Your task to perform on an android device: Open location settings Image 0: 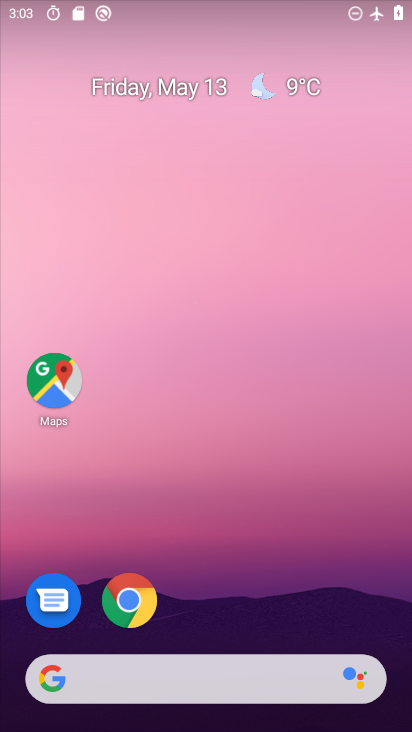
Step 0: drag from (183, 395) to (221, 112)
Your task to perform on an android device: Open location settings Image 1: 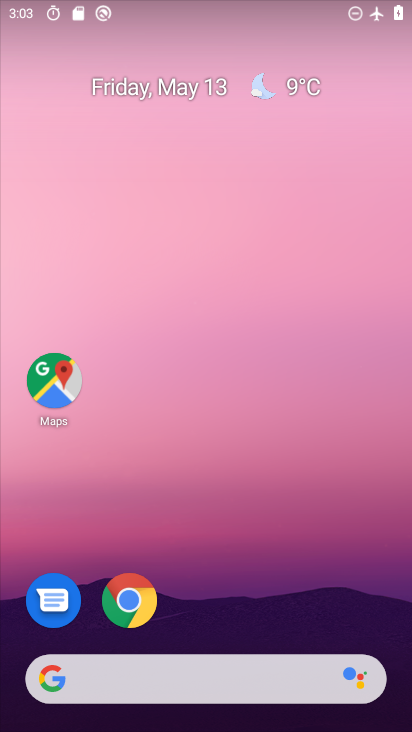
Step 1: drag from (194, 639) to (248, 124)
Your task to perform on an android device: Open location settings Image 2: 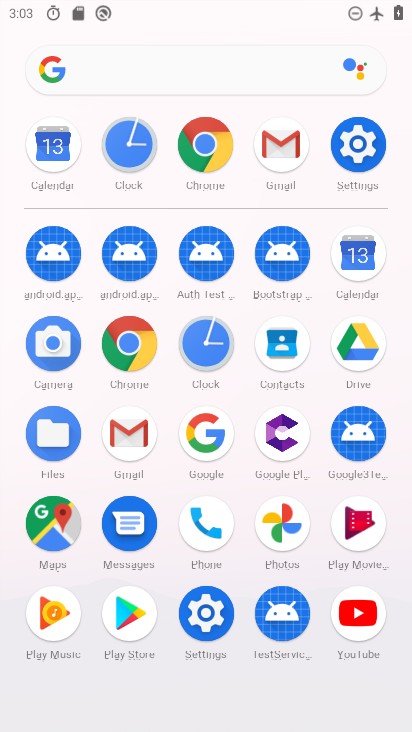
Step 2: click (360, 142)
Your task to perform on an android device: Open location settings Image 3: 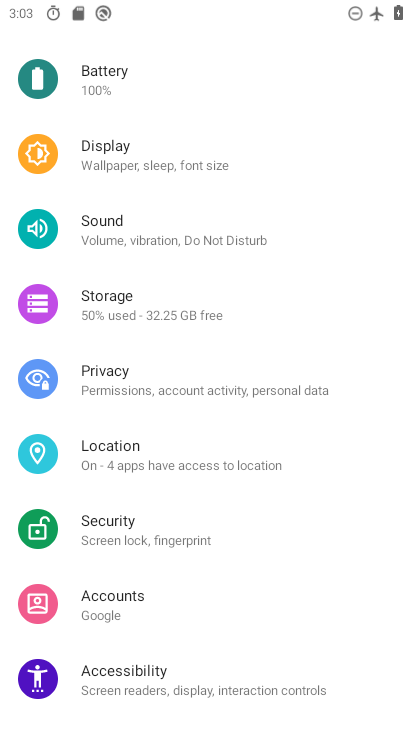
Step 3: click (143, 457)
Your task to perform on an android device: Open location settings Image 4: 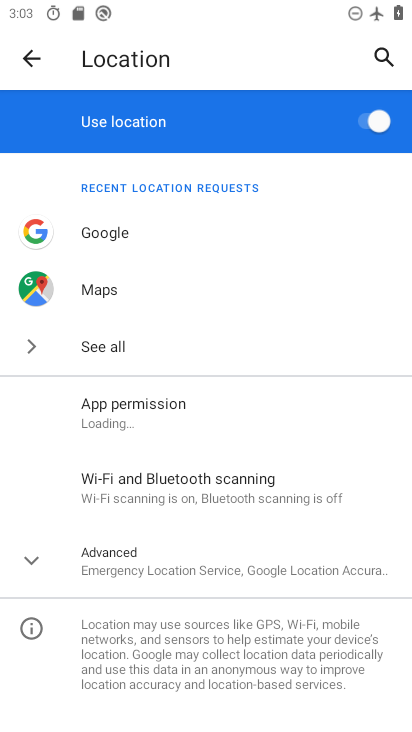
Step 4: click (143, 558)
Your task to perform on an android device: Open location settings Image 5: 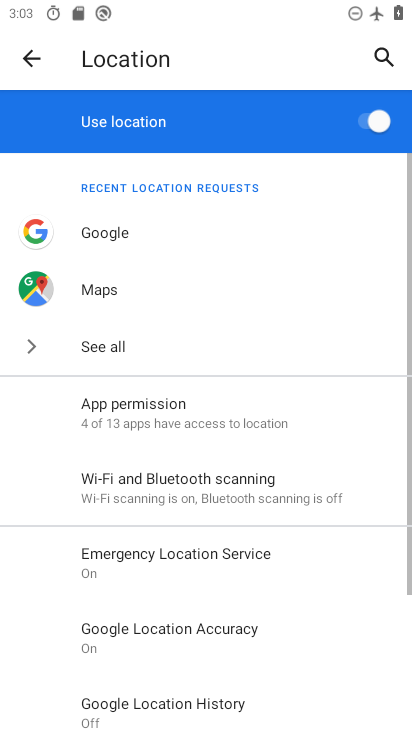
Step 5: task complete